Your task to perform on an android device: turn on priority inbox in the gmail app Image 0: 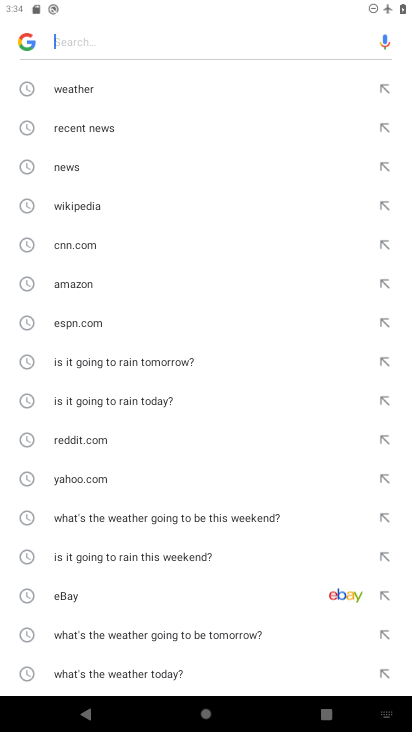
Step 0: press home button
Your task to perform on an android device: turn on priority inbox in the gmail app Image 1: 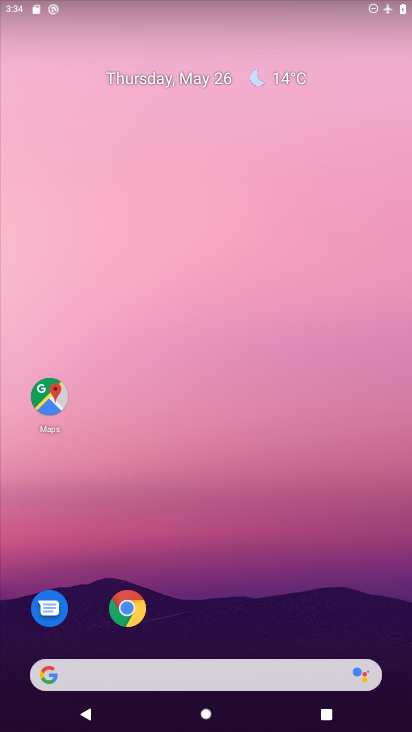
Step 1: drag from (302, 613) to (354, 90)
Your task to perform on an android device: turn on priority inbox in the gmail app Image 2: 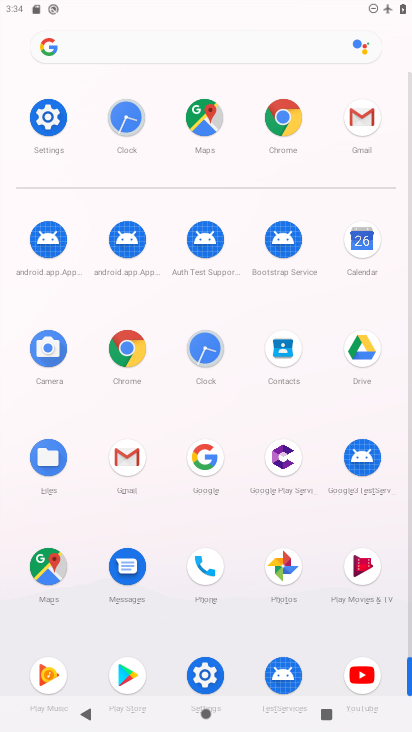
Step 2: click (369, 113)
Your task to perform on an android device: turn on priority inbox in the gmail app Image 3: 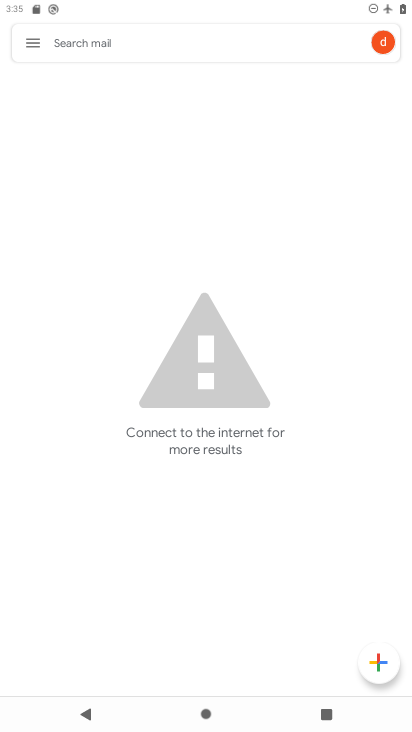
Step 3: click (22, 35)
Your task to perform on an android device: turn on priority inbox in the gmail app Image 4: 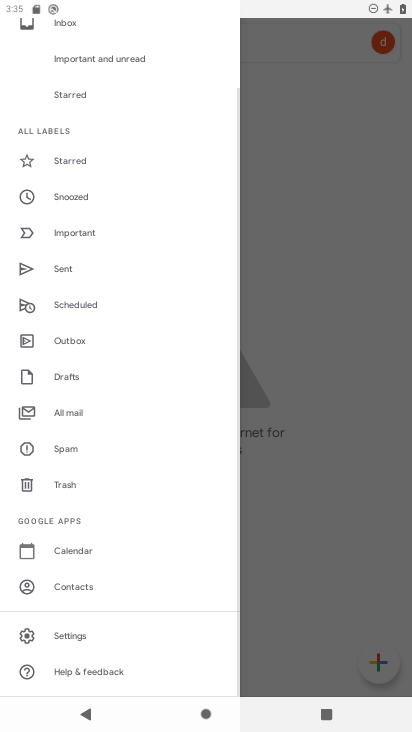
Step 4: click (70, 634)
Your task to perform on an android device: turn on priority inbox in the gmail app Image 5: 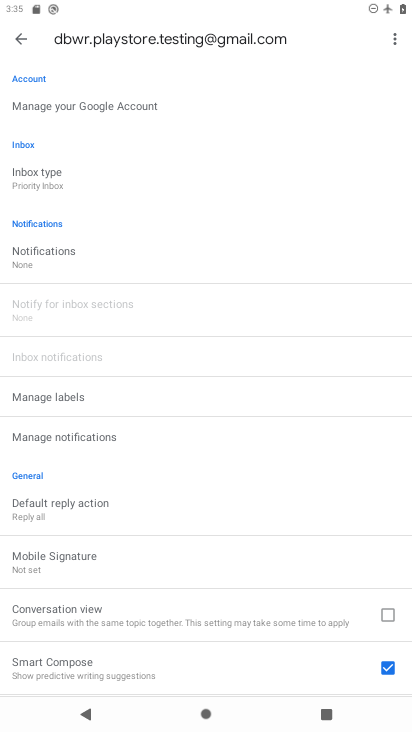
Step 5: click (35, 179)
Your task to perform on an android device: turn on priority inbox in the gmail app Image 6: 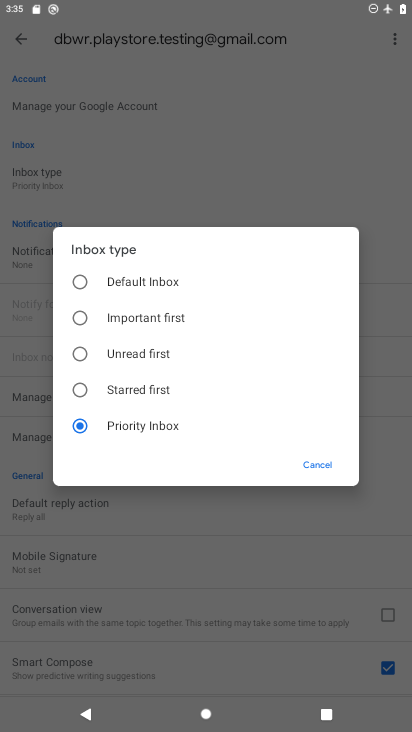
Step 6: task complete